Your task to perform on an android device: Go to privacy settings Image 0: 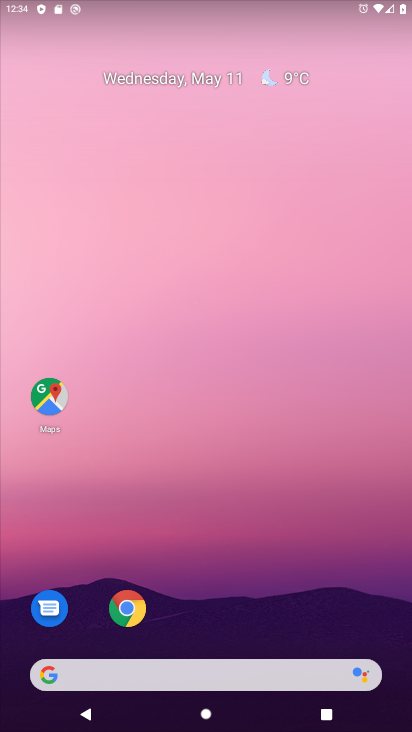
Step 0: drag from (280, 680) to (191, 256)
Your task to perform on an android device: Go to privacy settings Image 1: 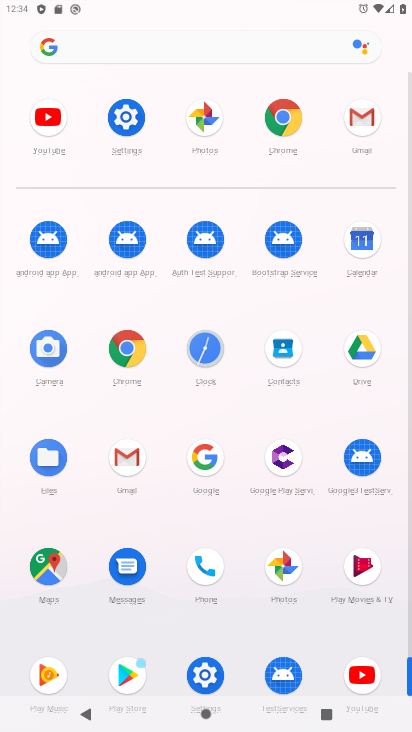
Step 1: click (134, 126)
Your task to perform on an android device: Go to privacy settings Image 2: 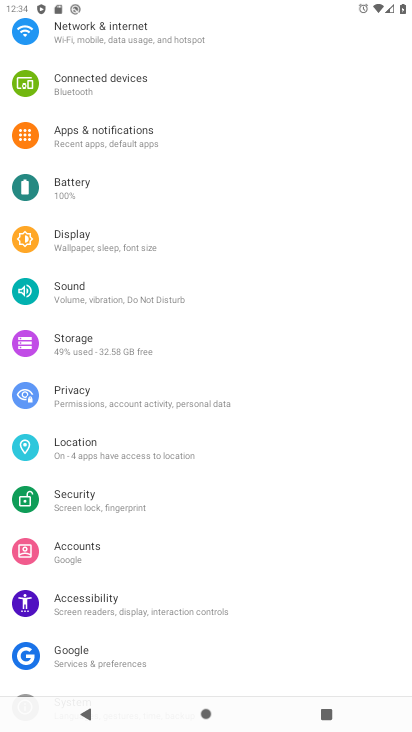
Step 2: click (97, 399)
Your task to perform on an android device: Go to privacy settings Image 3: 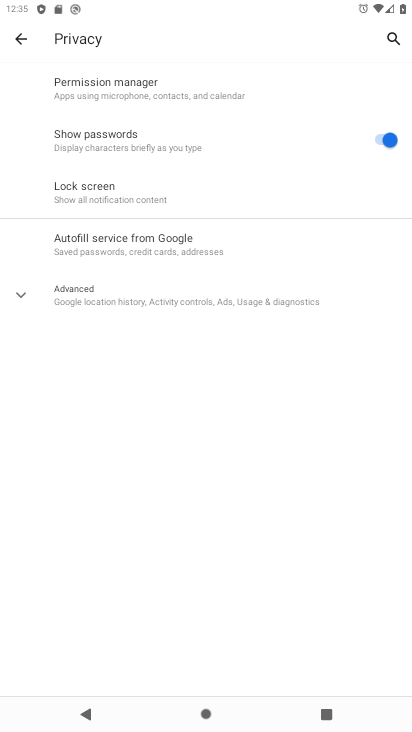
Step 3: task complete